Your task to perform on an android device: Open Google Chrome and click the shortcut for Amazon.com Image 0: 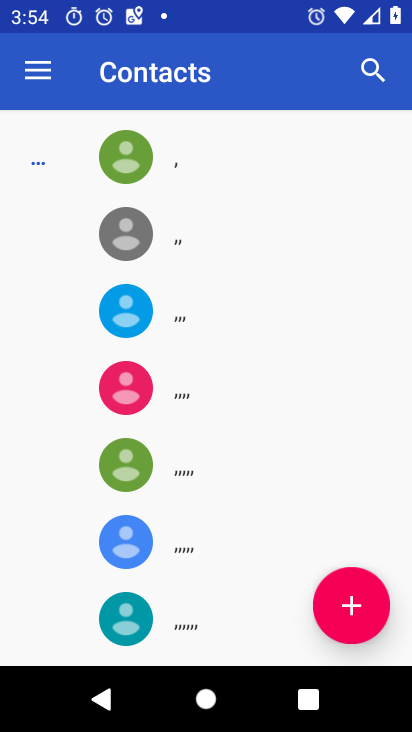
Step 0: press home button
Your task to perform on an android device: Open Google Chrome and click the shortcut for Amazon.com Image 1: 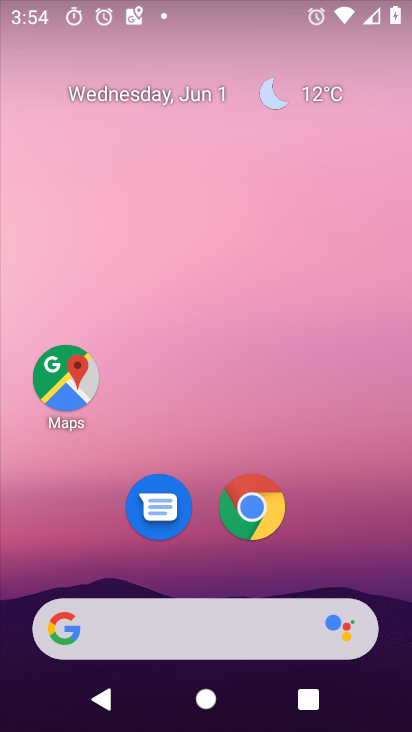
Step 1: click (266, 521)
Your task to perform on an android device: Open Google Chrome and click the shortcut for Amazon.com Image 2: 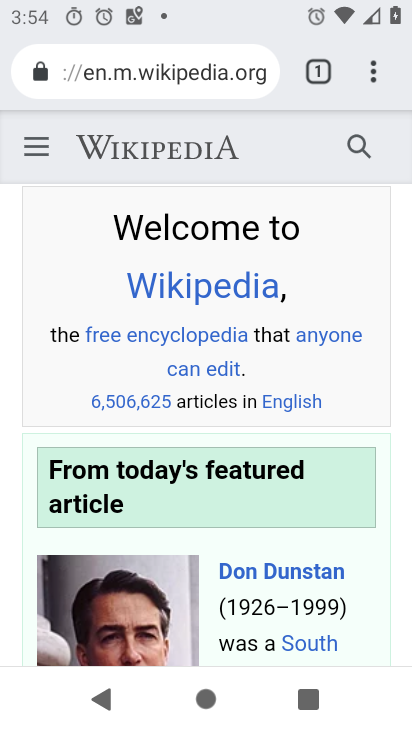
Step 2: drag from (201, 42) to (201, 520)
Your task to perform on an android device: Open Google Chrome and click the shortcut for Amazon.com Image 3: 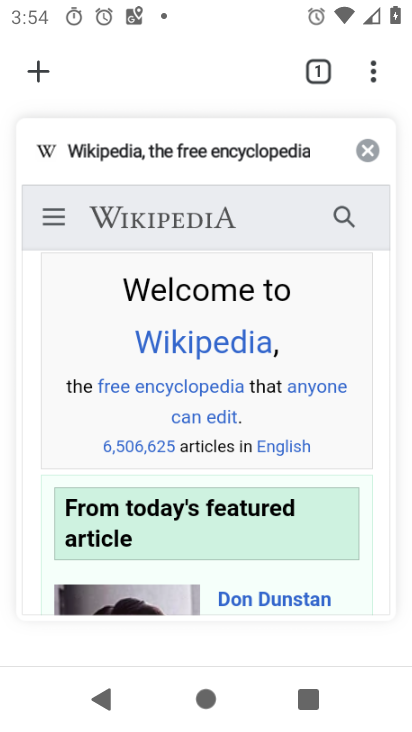
Step 3: click (38, 70)
Your task to perform on an android device: Open Google Chrome and click the shortcut for Amazon.com Image 4: 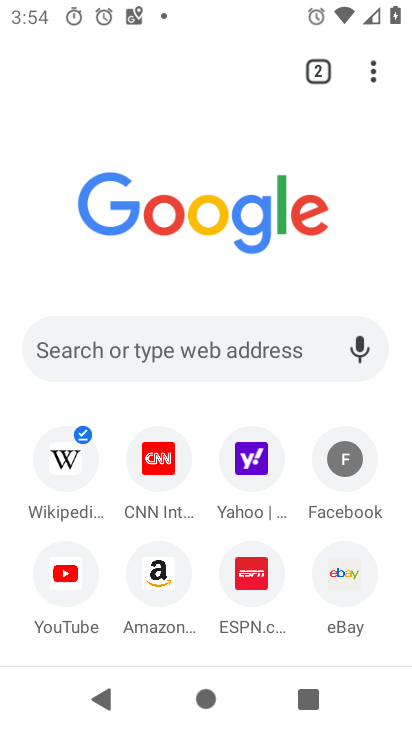
Step 4: click (158, 582)
Your task to perform on an android device: Open Google Chrome and click the shortcut for Amazon.com Image 5: 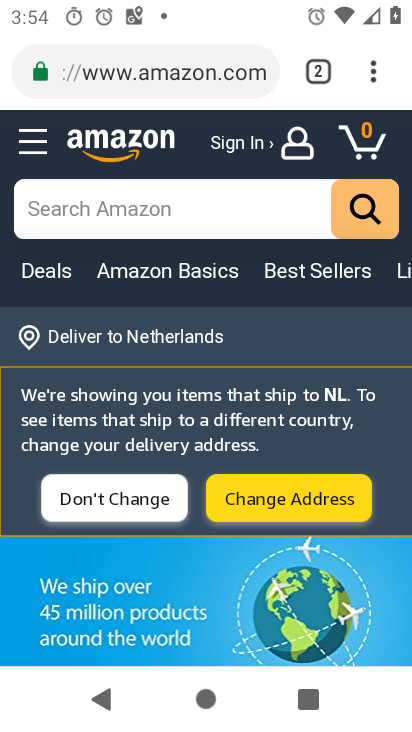
Step 5: task complete